Your task to perform on an android device: Search for seafood restaurants on Google Maps Image 0: 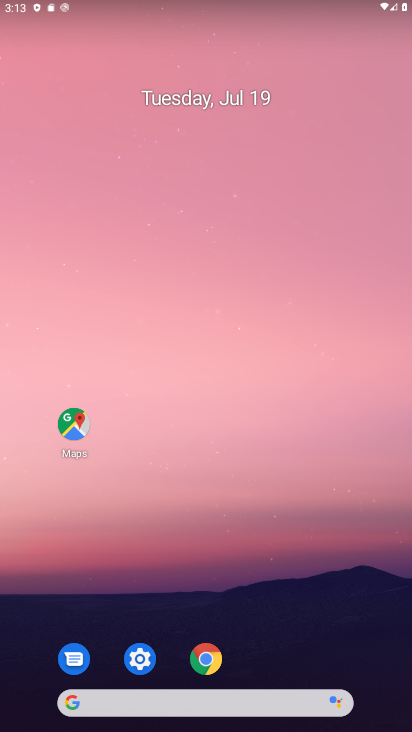
Step 0: drag from (175, 202) to (164, 148)
Your task to perform on an android device: Search for seafood restaurants on Google Maps Image 1: 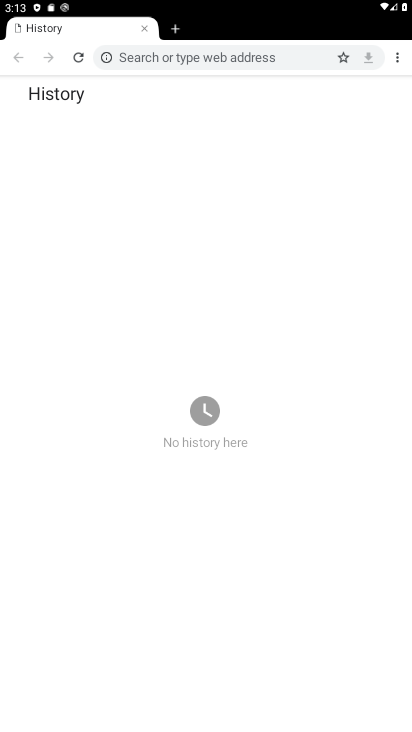
Step 1: press back button
Your task to perform on an android device: Search for seafood restaurants on Google Maps Image 2: 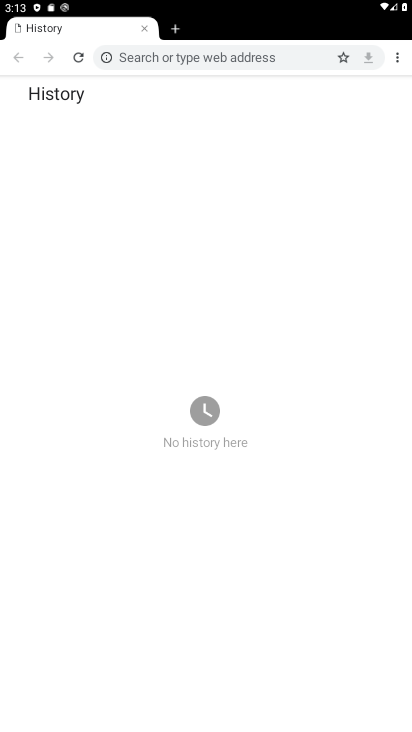
Step 2: press back button
Your task to perform on an android device: Search for seafood restaurants on Google Maps Image 3: 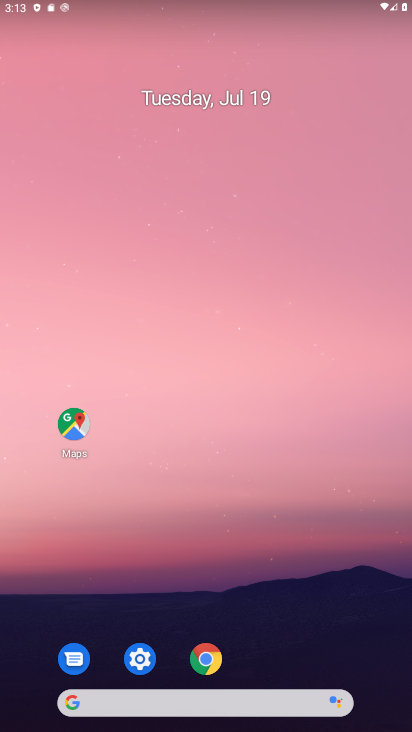
Step 3: drag from (211, 576) to (157, 119)
Your task to perform on an android device: Search for seafood restaurants on Google Maps Image 4: 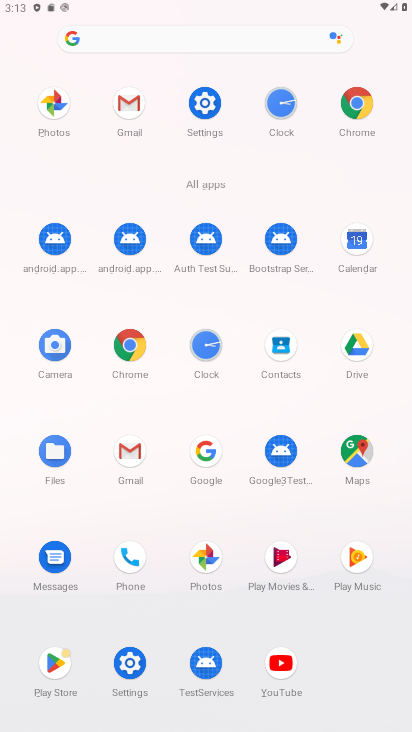
Step 4: click (354, 448)
Your task to perform on an android device: Search for seafood restaurants on Google Maps Image 5: 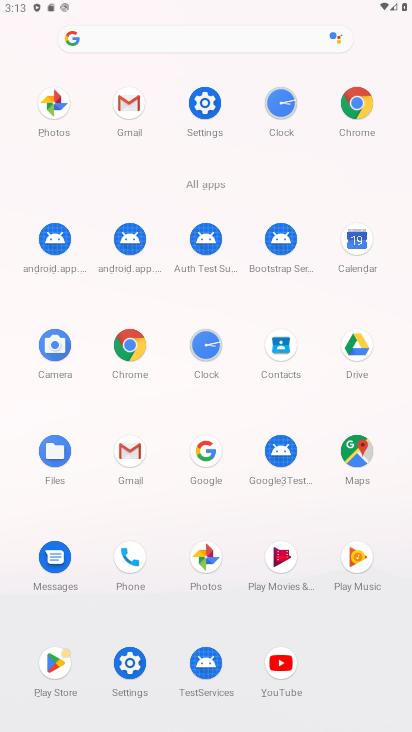
Step 5: click (354, 448)
Your task to perform on an android device: Search for seafood restaurants on Google Maps Image 6: 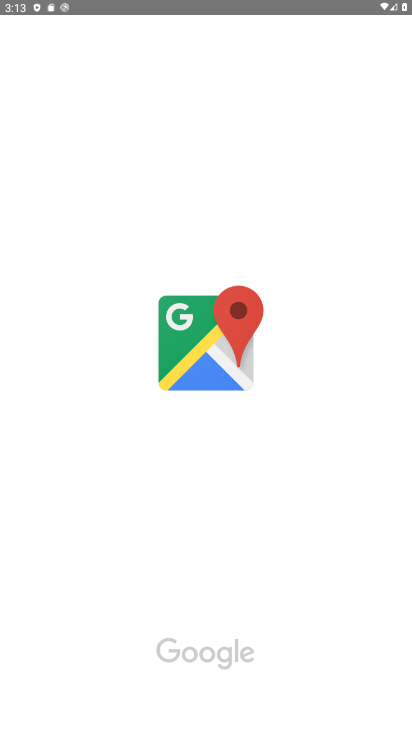
Step 6: click (341, 455)
Your task to perform on an android device: Search for seafood restaurants on Google Maps Image 7: 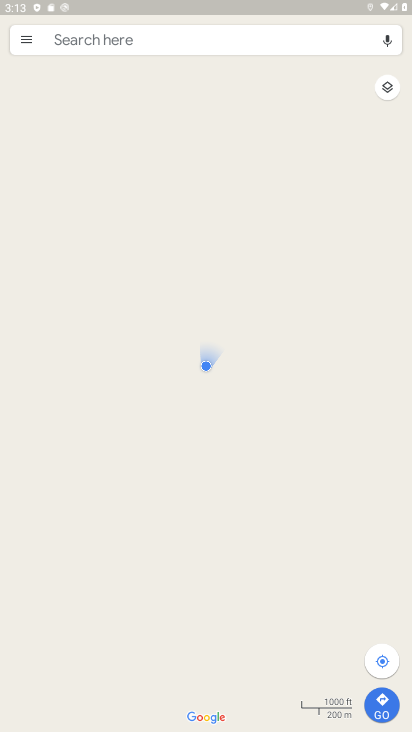
Step 7: click (74, 30)
Your task to perform on an android device: Search for seafood restaurants on Google Maps Image 8: 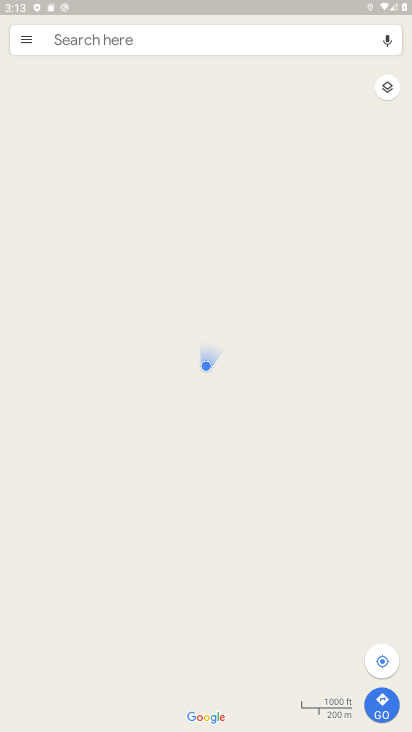
Step 8: click (83, 32)
Your task to perform on an android device: Search for seafood restaurants on Google Maps Image 9: 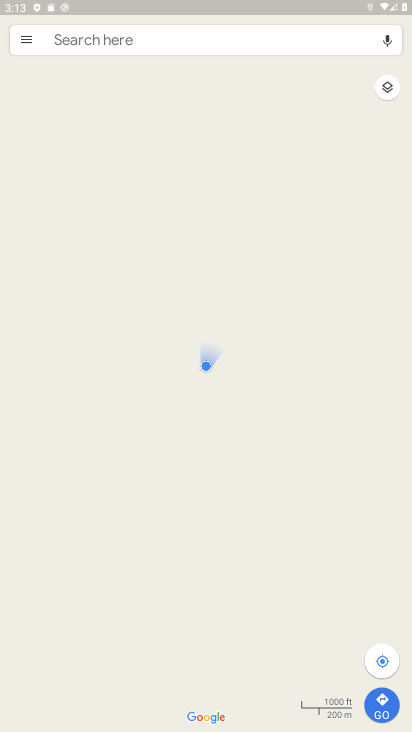
Step 9: click (89, 35)
Your task to perform on an android device: Search for seafood restaurants on Google Maps Image 10: 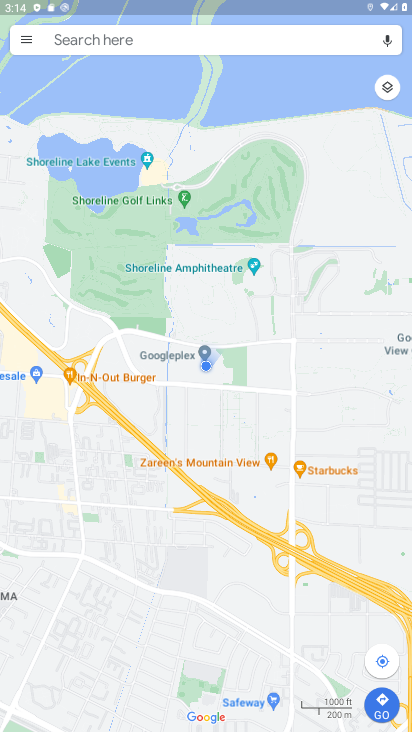
Step 10: click (70, 49)
Your task to perform on an android device: Search for seafood restaurants on Google Maps Image 11: 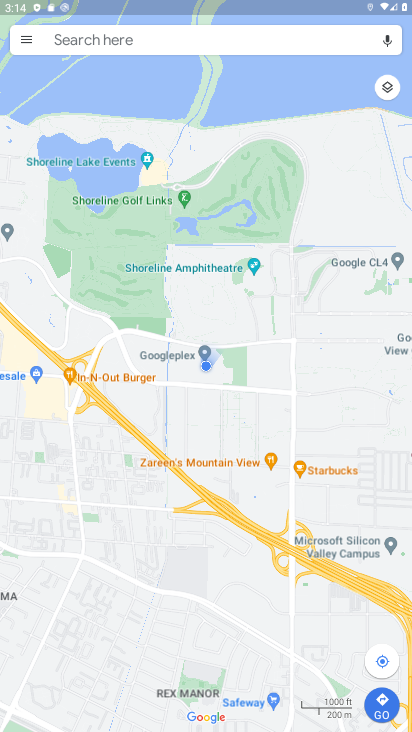
Step 11: click (69, 36)
Your task to perform on an android device: Search for seafood restaurants on Google Maps Image 12: 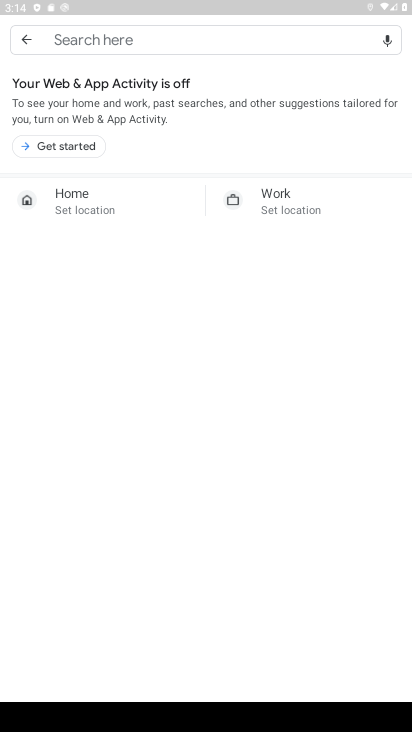
Step 12: type "seafood restaurants"
Your task to perform on an android device: Search for seafood restaurants on Google Maps Image 13: 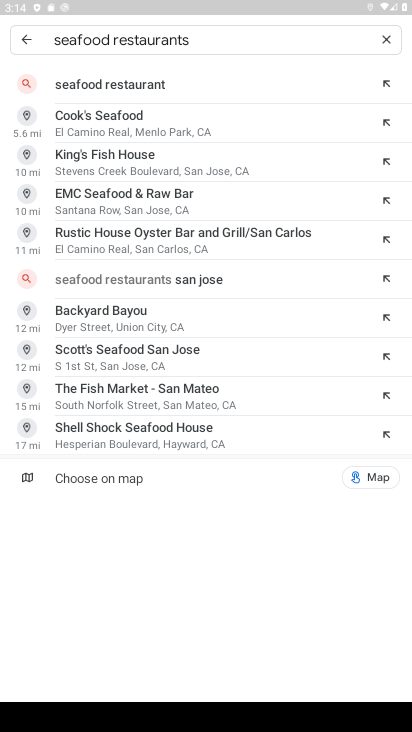
Step 13: click (153, 81)
Your task to perform on an android device: Search for seafood restaurants on Google Maps Image 14: 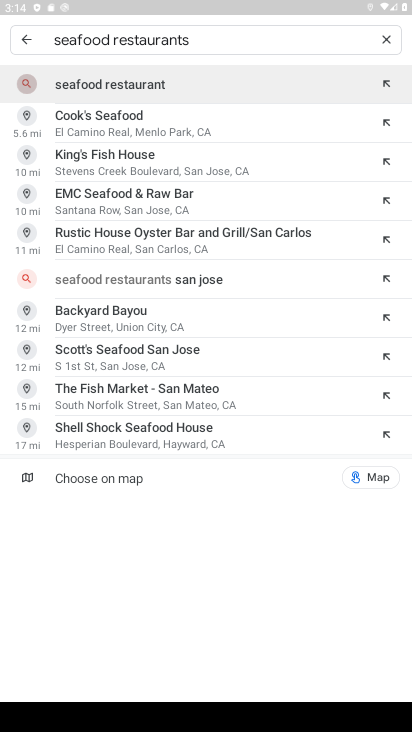
Step 14: click (161, 80)
Your task to perform on an android device: Search for seafood restaurants on Google Maps Image 15: 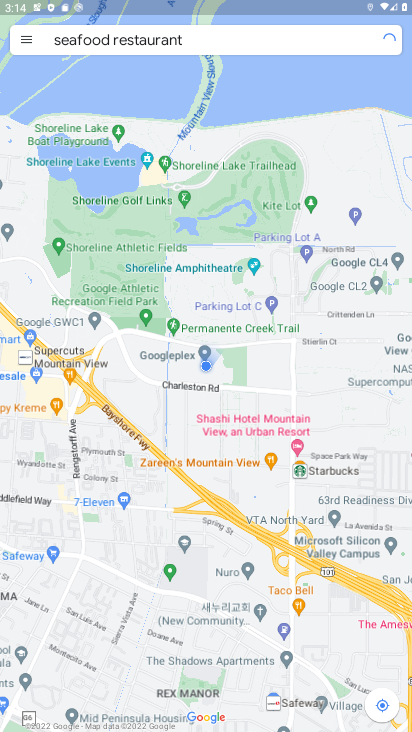
Step 15: task complete